Your task to perform on an android device: see sites visited before in the chrome app Image 0: 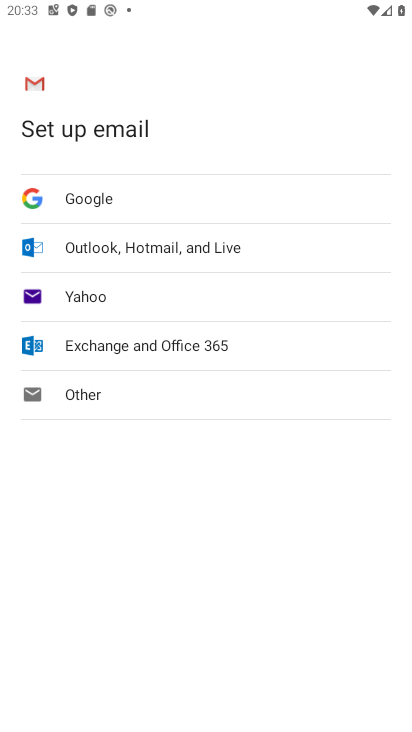
Step 0: press home button
Your task to perform on an android device: see sites visited before in the chrome app Image 1: 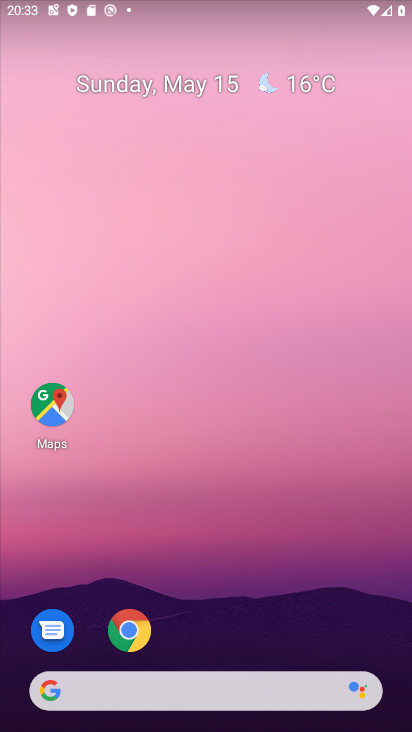
Step 1: click (124, 637)
Your task to perform on an android device: see sites visited before in the chrome app Image 2: 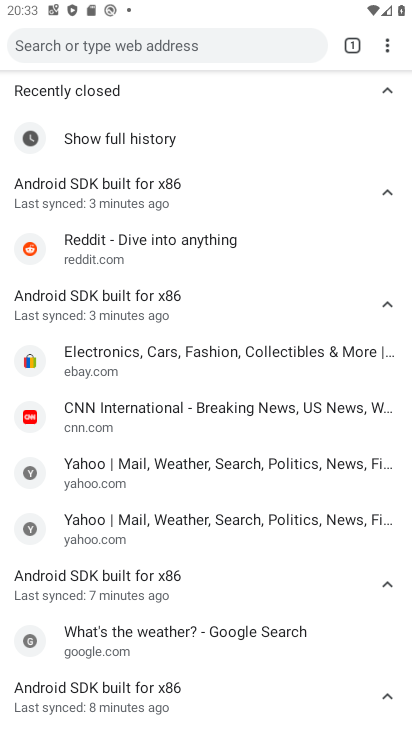
Step 2: click (384, 48)
Your task to perform on an android device: see sites visited before in the chrome app Image 3: 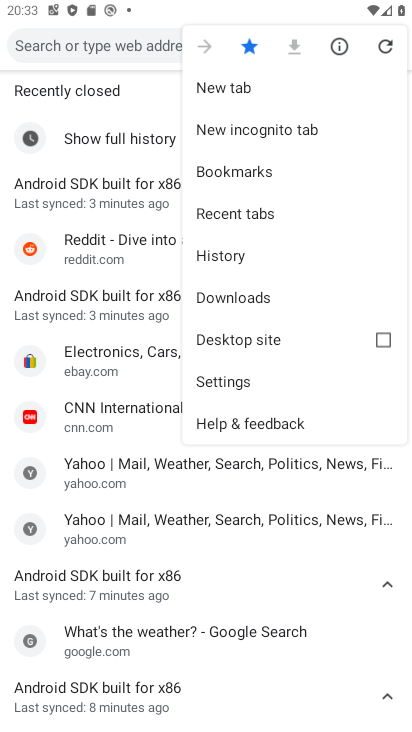
Step 3: click (216, 262)
Your task to perform on an android device: see sites visited before in the chrome app Image 4: 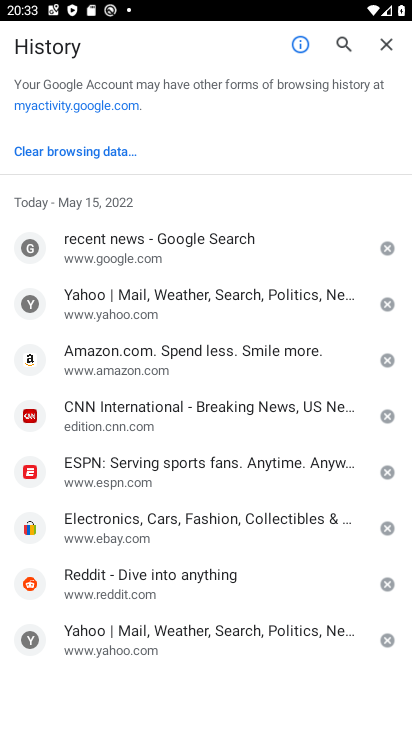
Step 4: task complete